Your task to perform on an android device: open a bookmark in the chrome app Image 0: 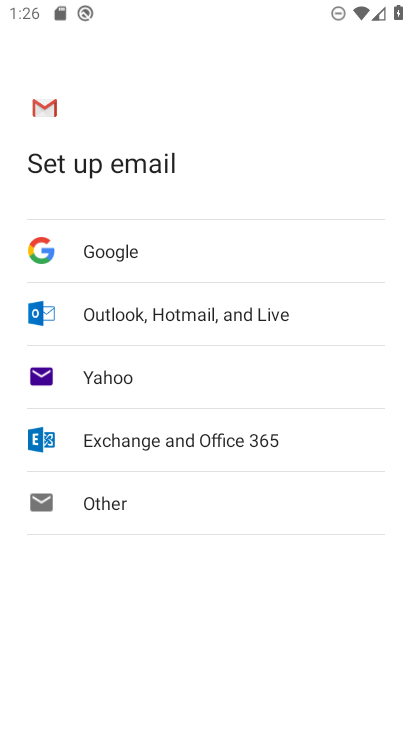
Step 0: press home button
Your task to perform on an android device: open a bookmark in the chrome app Image 1: 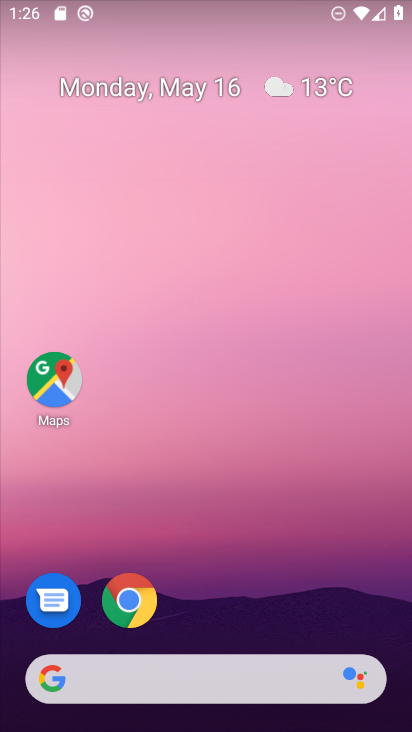
Step 1: drag from (219, 631) to (253, 113)
Your task to perform on an android device: open a bookmark in the chrome app Image 2: 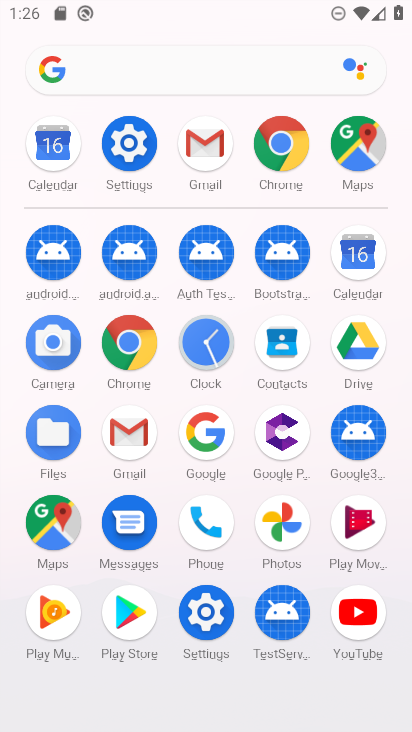
Step 2: click (278, 135)
Your task to perform on an android device: open a bookmark in the chrome app Image 3: 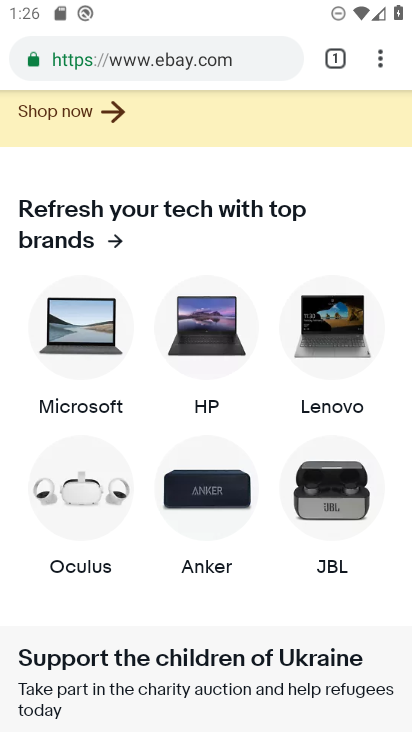
Step 3: click (379, 51)
Your task to perform on an android device: open a bookmark in the chrome app Image 4: 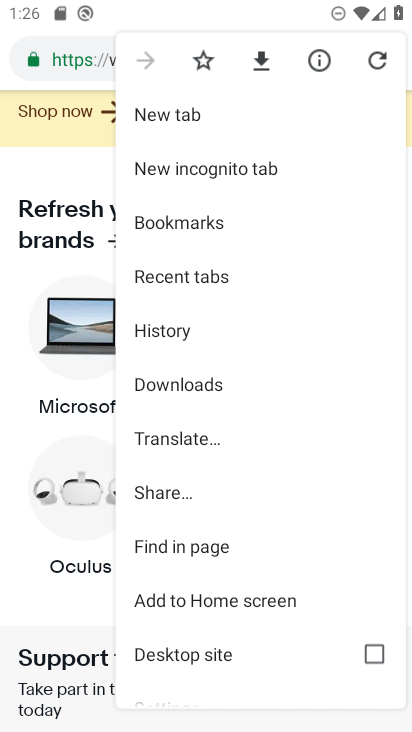
Step 4: click (233, 218)
Your task to perform on an android device: open a bookmark in the chrome app Image 5: 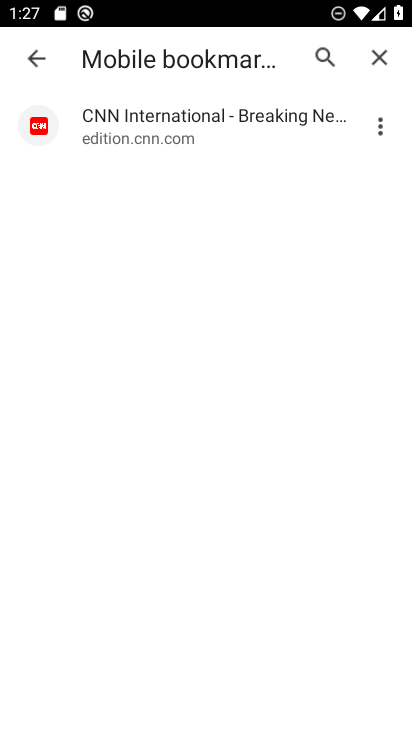
Step 5: click (194, 127)
Your task to perform on an android device: open a bookmark in the chrome app Image 6: 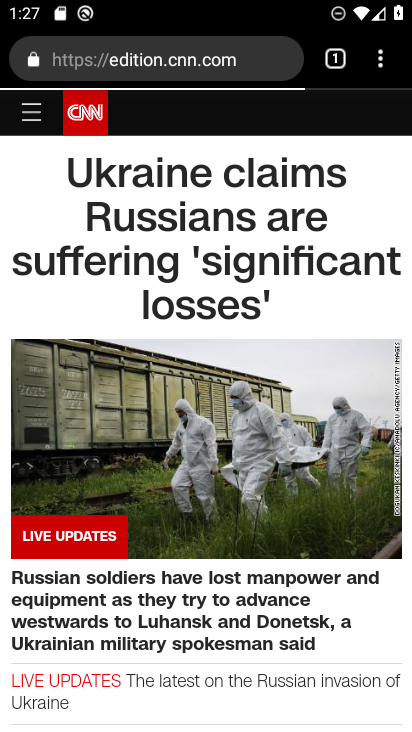
Step 6: task complete